Your task to perform on an android device: turn on javascript in the chrome app Image 0: 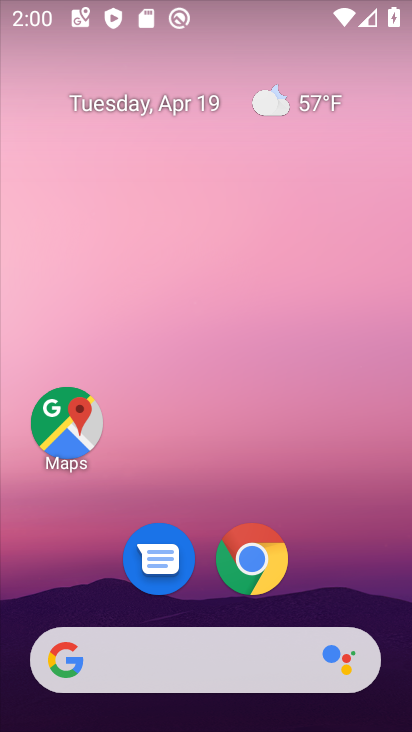
Step 0: drag from (219, 505) to (292, 43)
Your task to perform on an android device: turn on javascript in the chrome app Image 1: 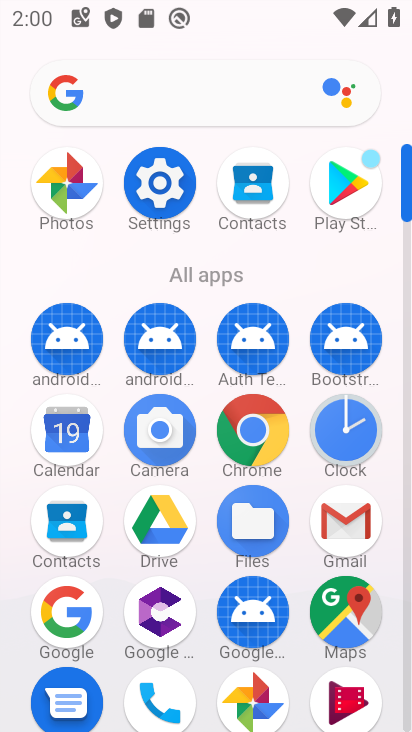
Step 1: click (255, 430)
Your task to perform on an android device: turn on javascript in the chrome app Image 2: 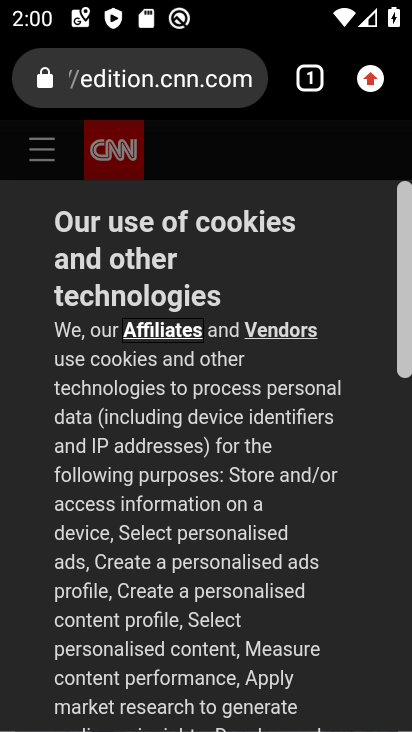
Step 2: drag from (201, 659) to (200, 197)
Your task to perform on an android device: turn on javascript in the chrome app Image 3: 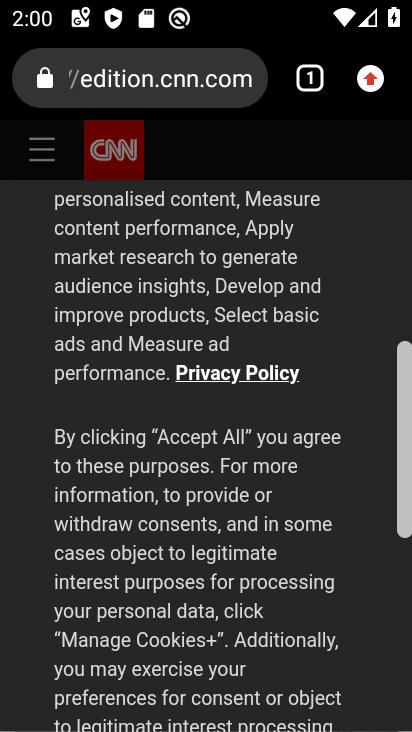
Step 3: drag from (194, 636) to (207, 234)
Your task to perform on an android device: turn on javascript in the chrome app Image 4: 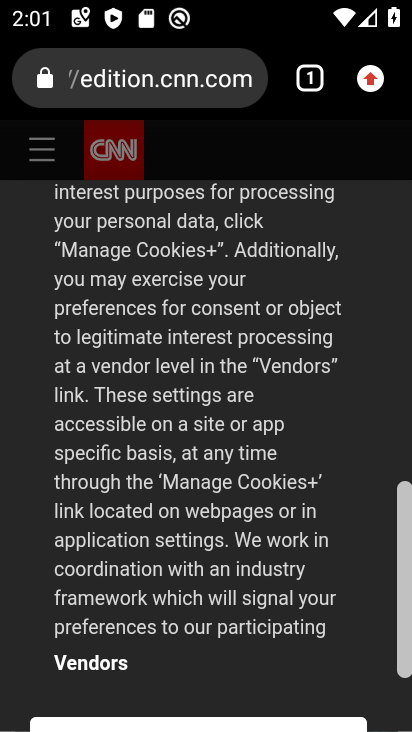
Step 4: drag from (212, 635) to (220, 178)
Your task to perform on an android device: turn on javascript in the chrome app Image 5: 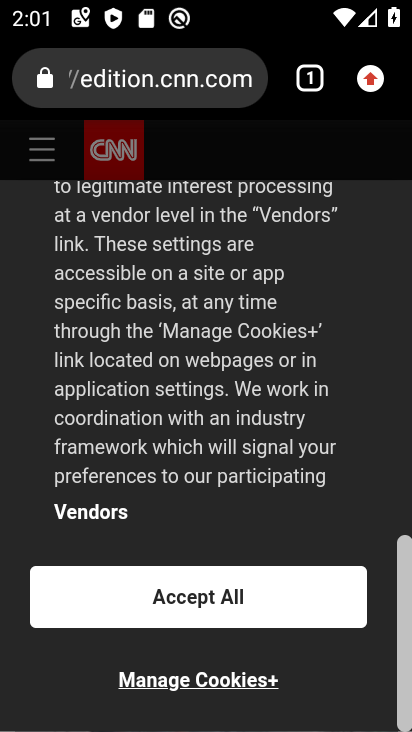
Step 5: click (216, 592)
Your task to perform on an android device: turn on javascript in the chrome app Image 6: 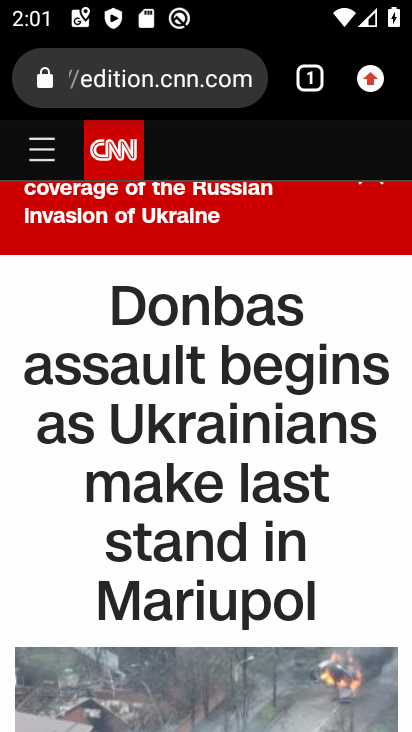
Step 6: task complete